Your task to perform on an android device: Open notification settings Image 0: 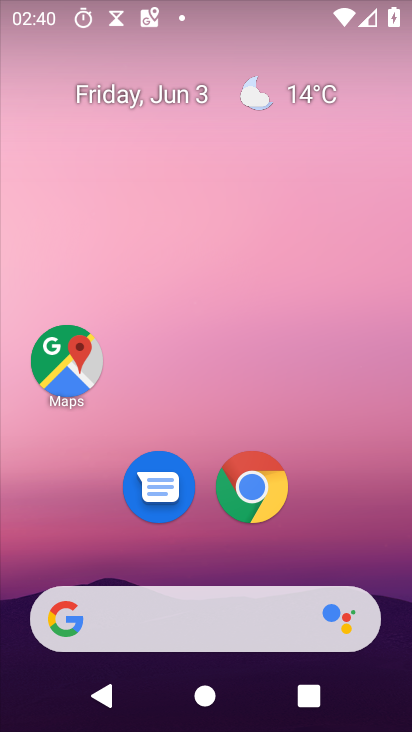
Step 0: drag from (323, 535) to (103, 170)
Your task to perform on an android device: Open notification settings Image 1: 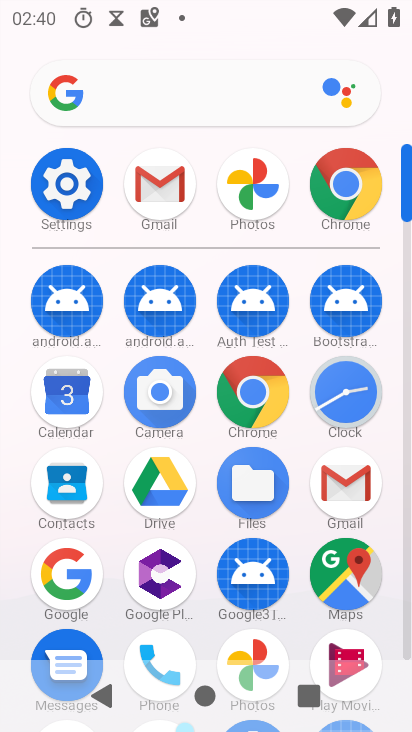
Step 1: click (86, 192)
Your task to perform on an android device: Open notification settings Image 2: 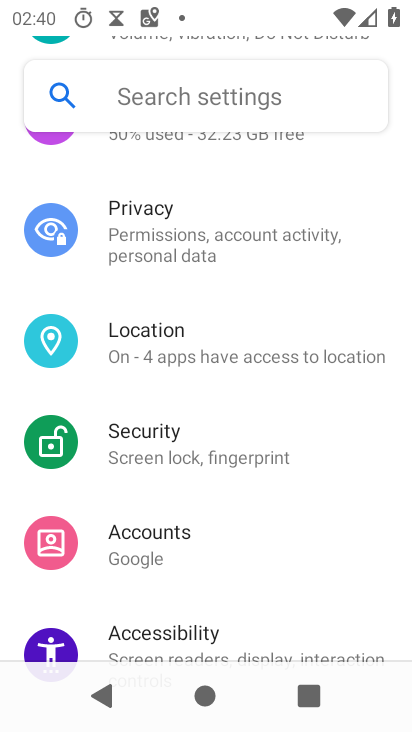
Step 2: drag from (247, 227) to (198, 703)
Your task to perform on an android device: Open notification settings Image 3: 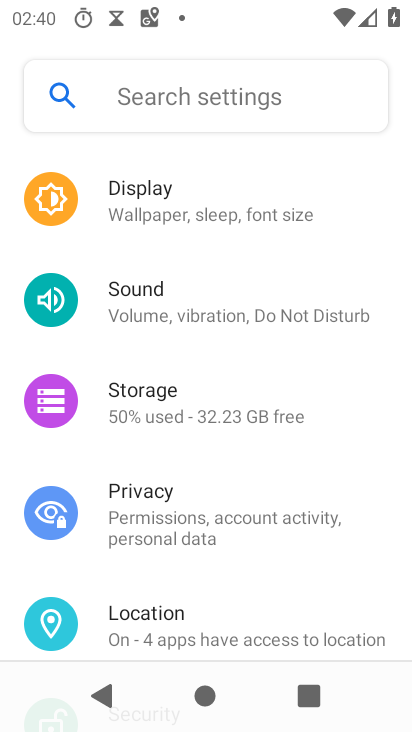
Step 3: drag from (250, 330) to (230, 547)
Your task to perform on an android device: Open notification settings Image 4: 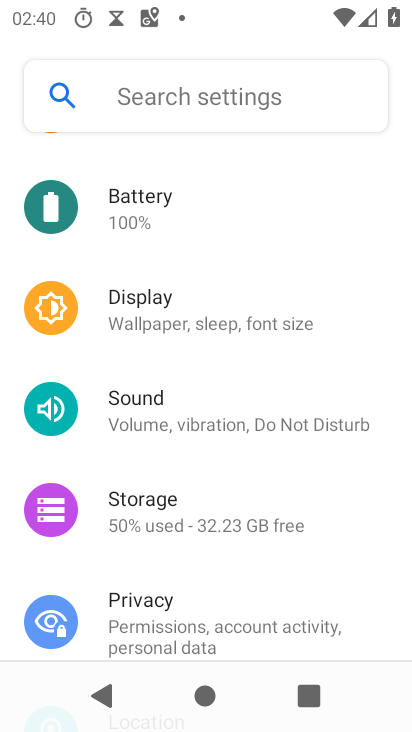
Step 4: drag from (214, 209) to (207, 581)
Your task to perform on an android device: Open notification settings Image 5: 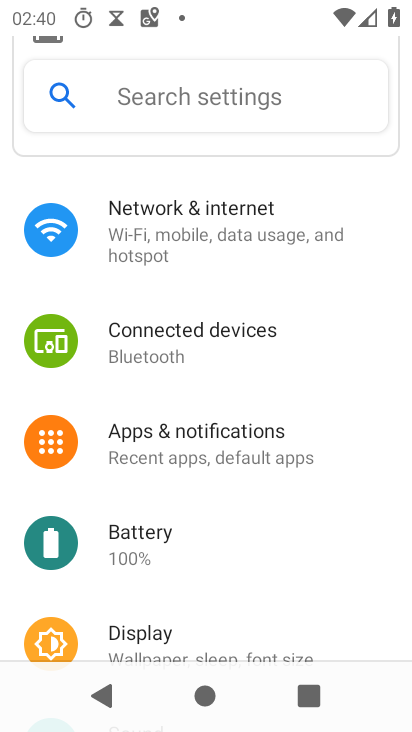
Step 5: click (206, 420)
Your task to perform on an android device: Open notification settings Image 6: 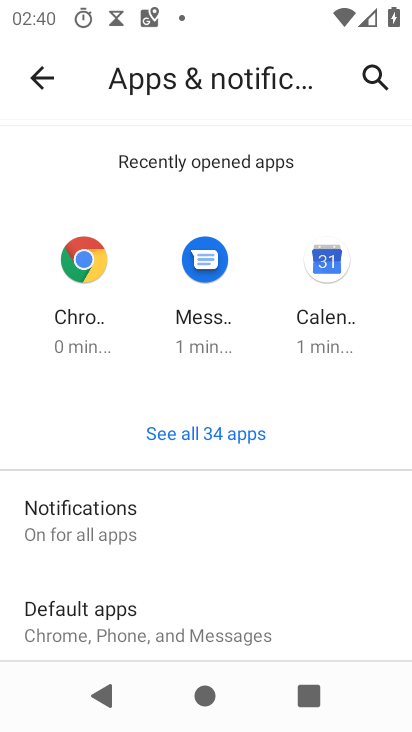
Step 6: task complete